Your task to perform on an android device: open app "Skype" Image 0: 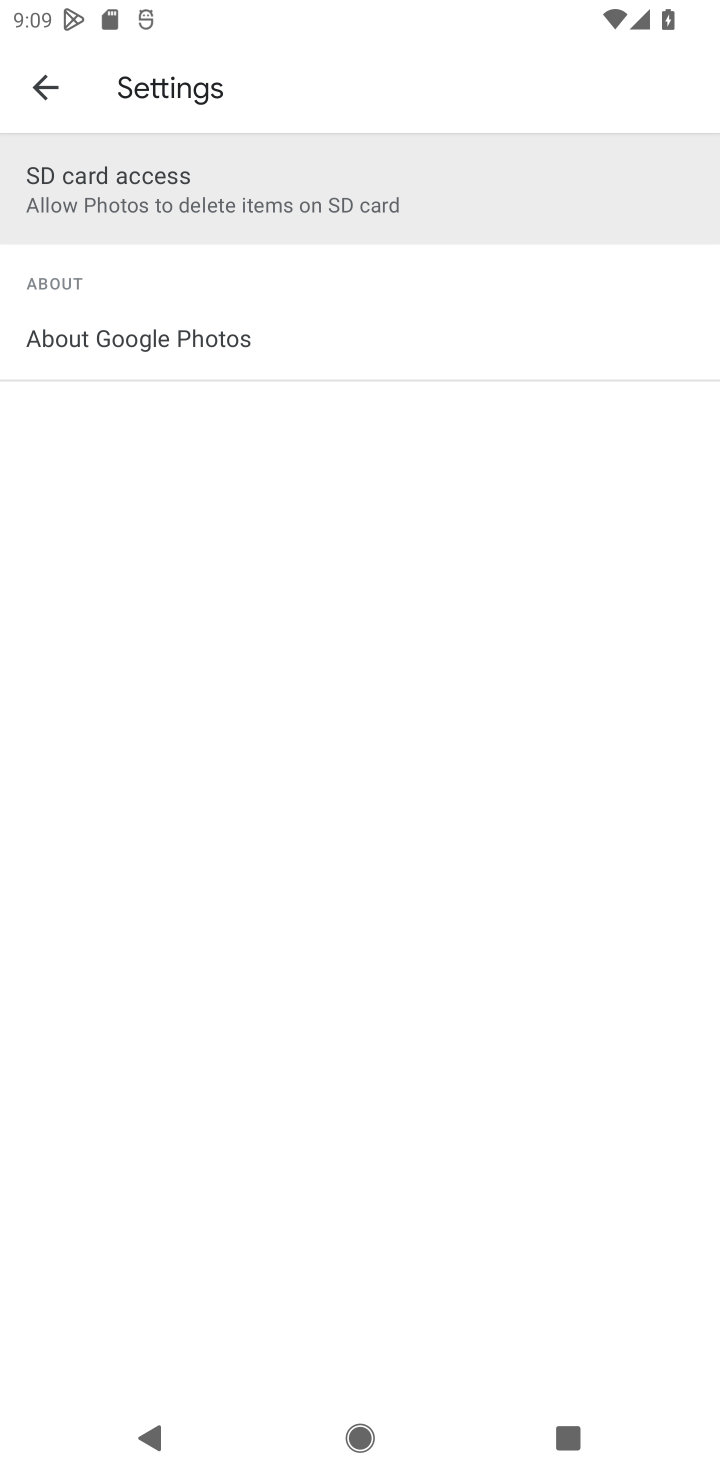
Step 0: press home button
Your task to perform on an android device: open app "Skype" Image 1: 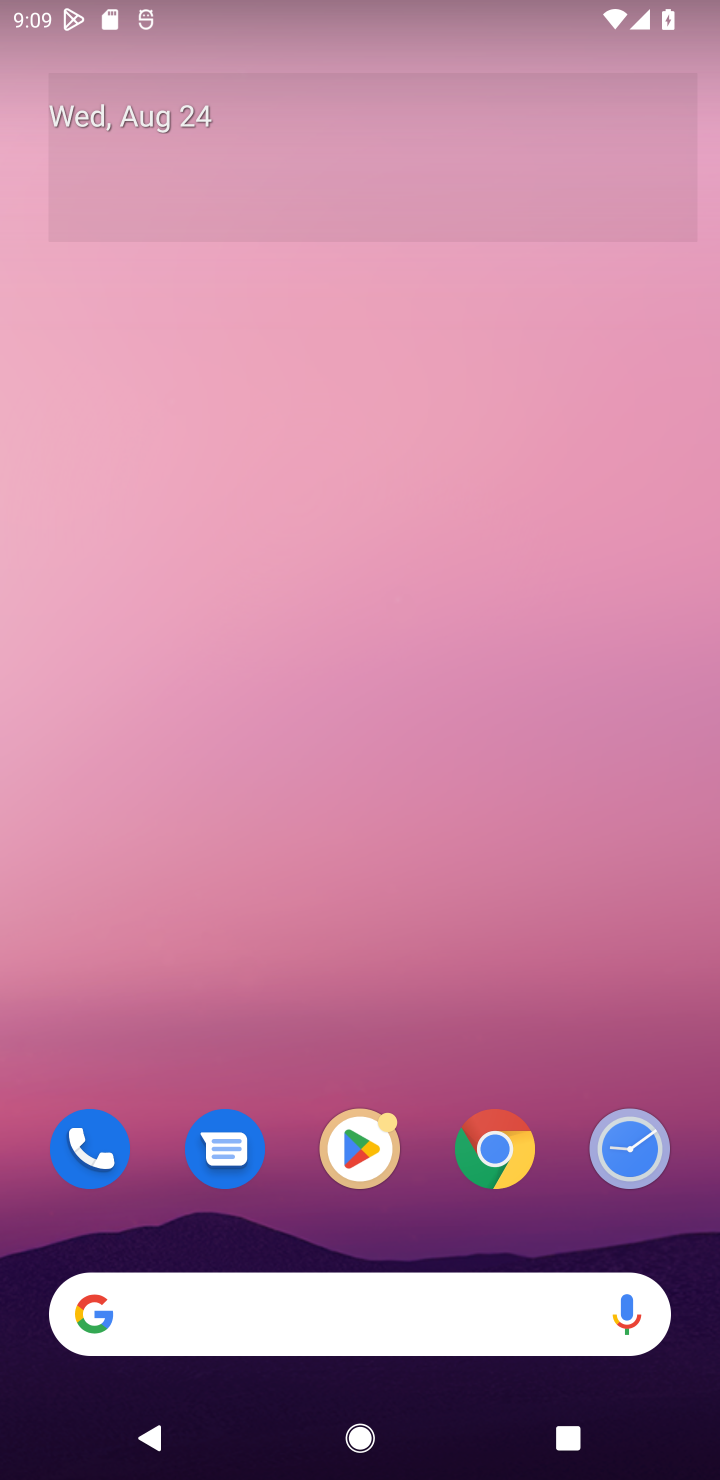
Step 1: drag from (366, 1097) to (497, 90)
Your task to perform on an android device: open app "Skype" Image 2: 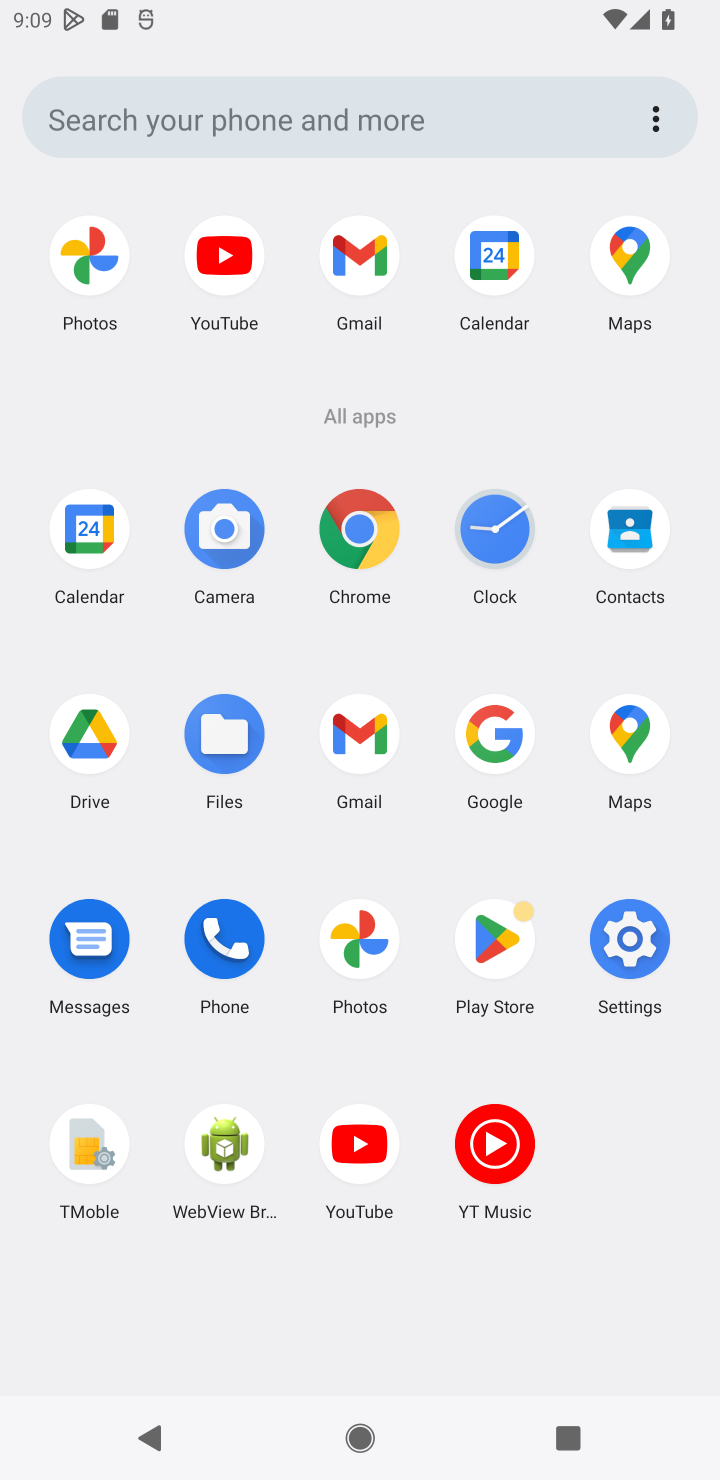
Step 2: click (492, 948)
Your task to perform on an android device: open app "Skype" Image 3: 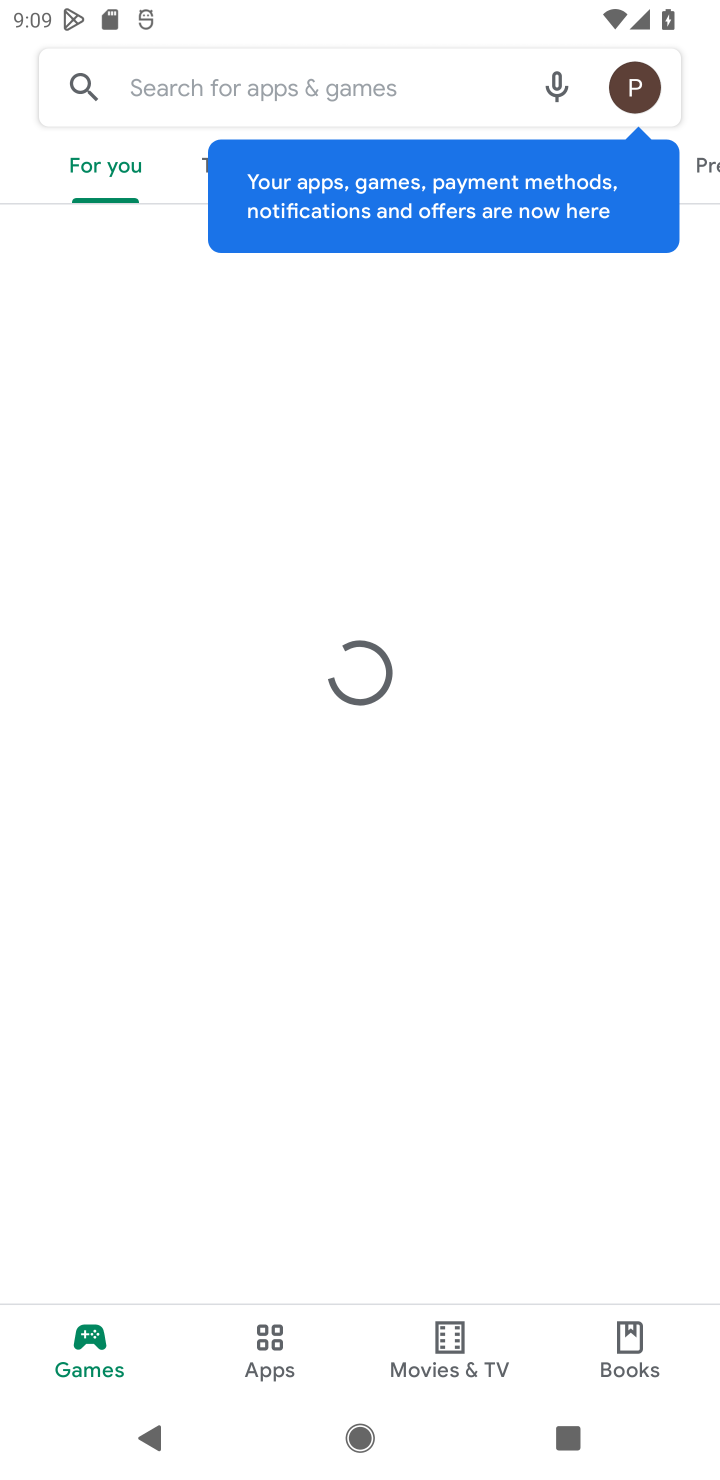
Step 3: click (422, 87)
Your task to perform on an android device: open app "Skype" Image 4: 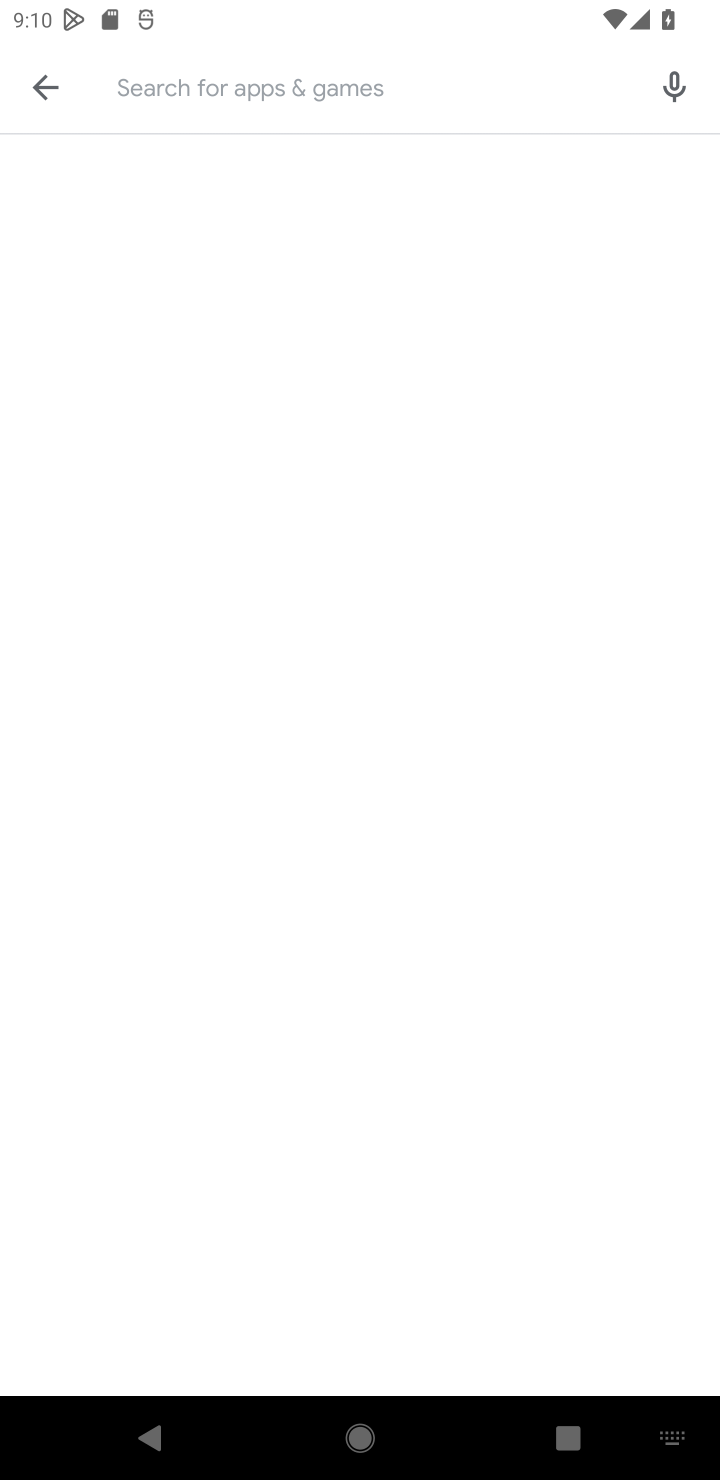
Step 4: type "Skype"
Your task to perform on an android device: open app "Skype" Image 5: 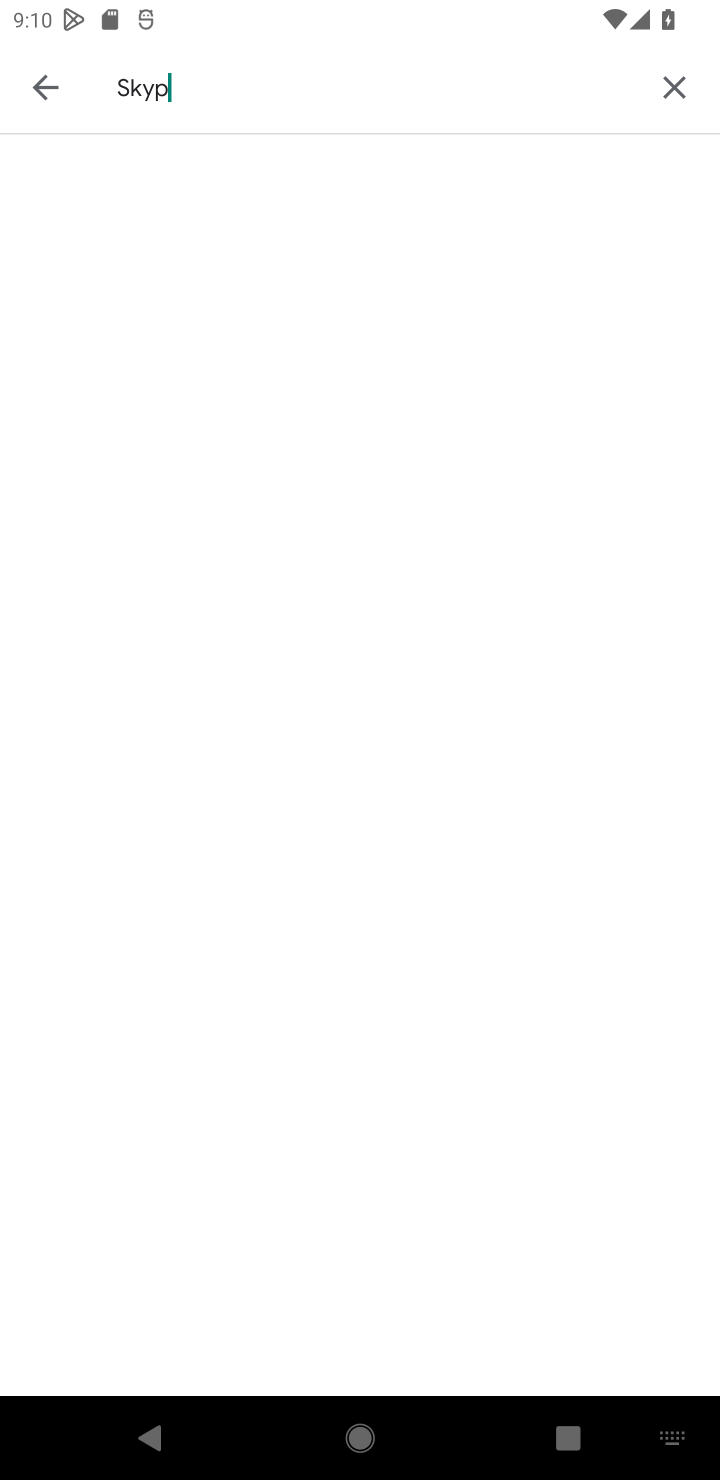
Step 5: press enter
Your task to perform on an android device: open app "Skype" Image 6: 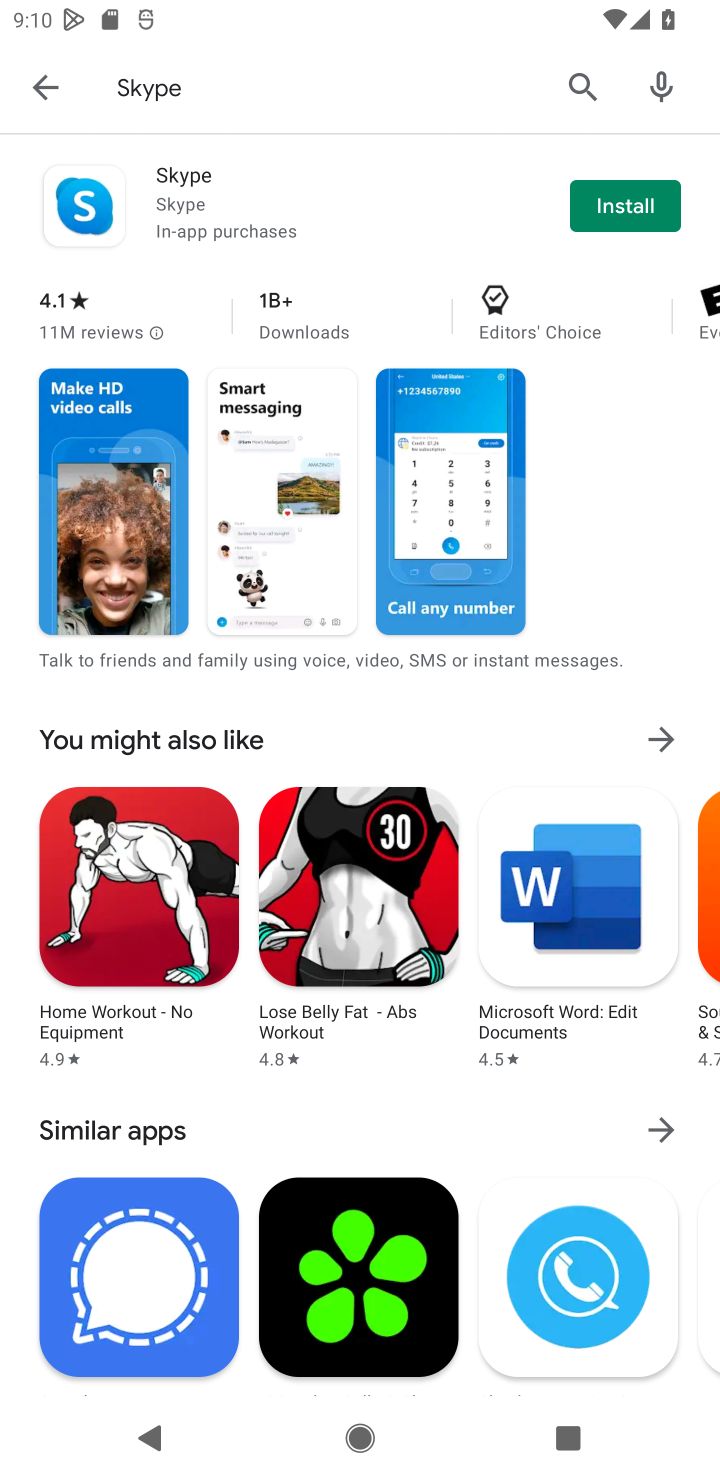
Step 6: task complete